Your task to perform on an android device: Clear the cart on amazon.com. Image 0: 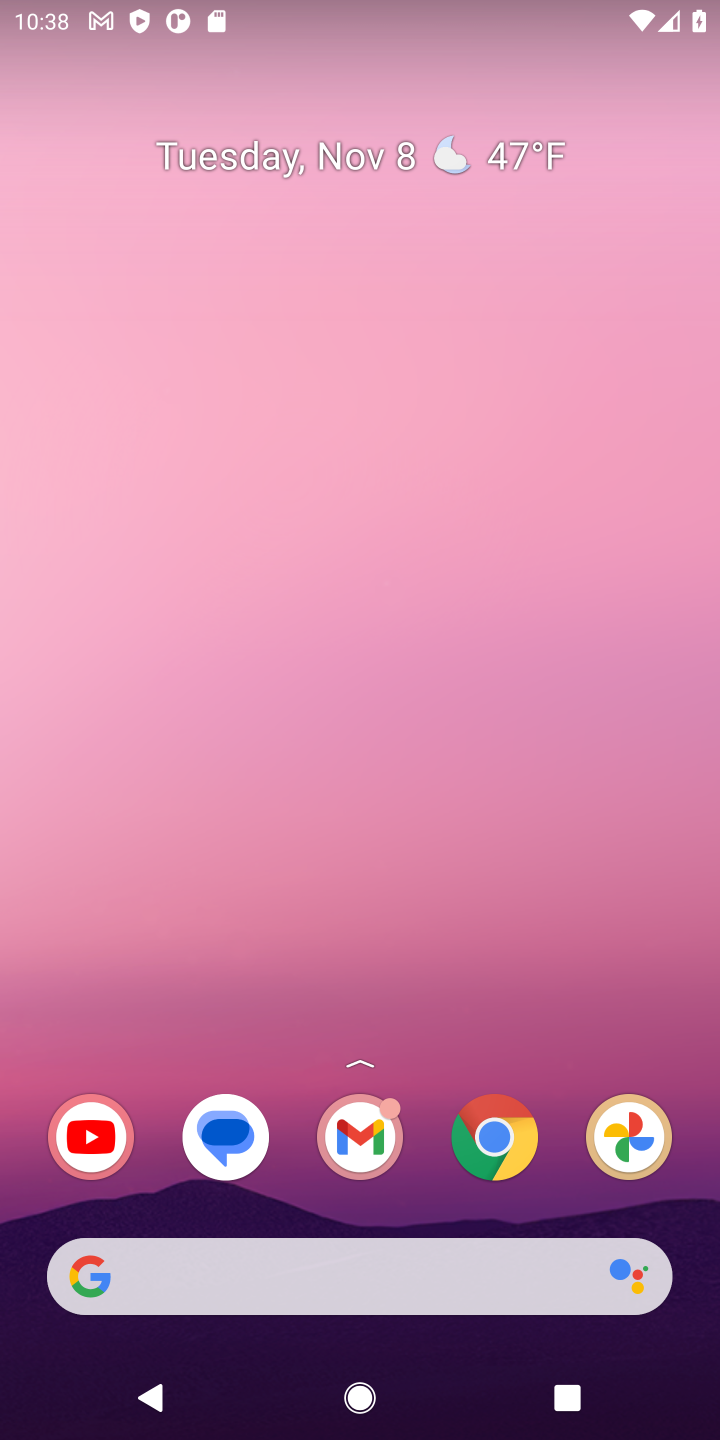
Step 0: click (493, 1135)
Your task to perform on an android device: Clear the cart on amazon.com. Image 1: 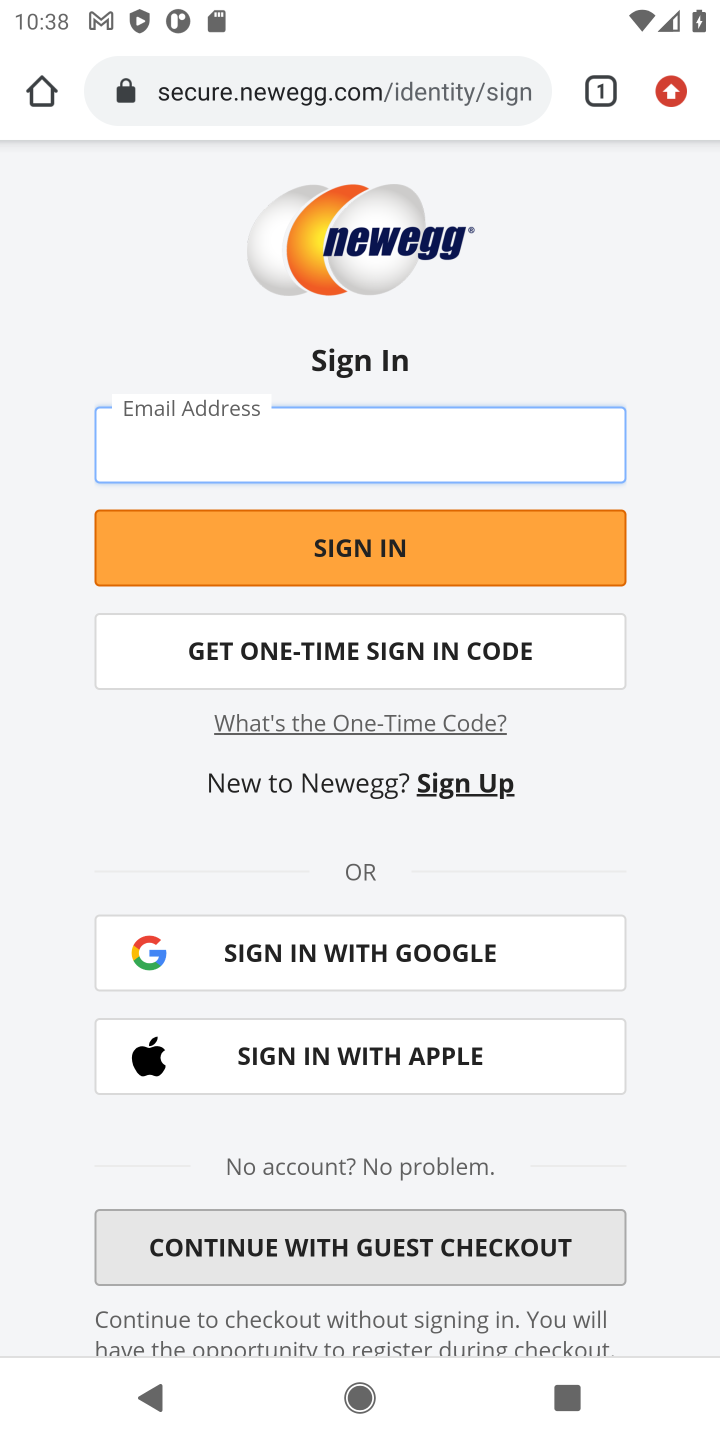
Step 1: click (401, 84)
Your task to perform on an android device: Clear the cart on amazon.com. Image 2: 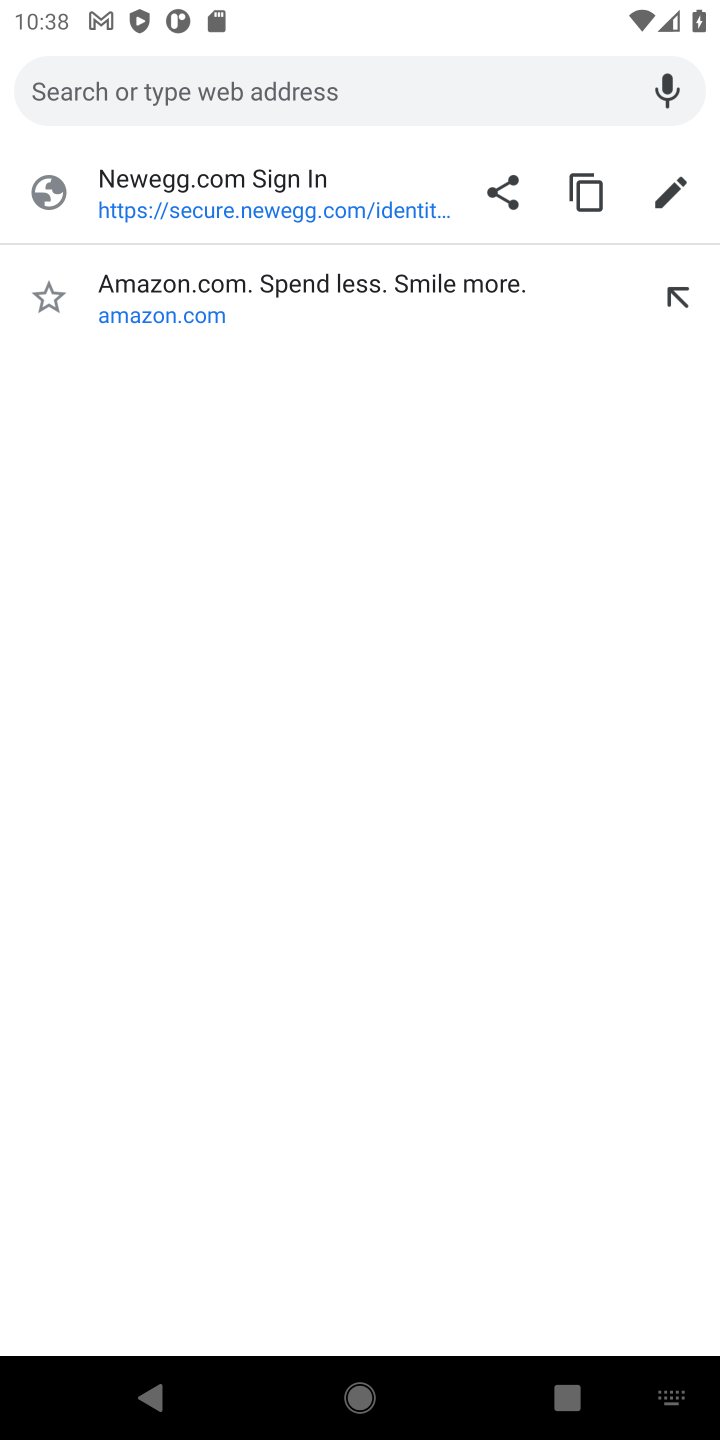
Step 2: type "amazon.com"
Your task to perform on an android device: Clear the cart on amazon.com. Image 3: 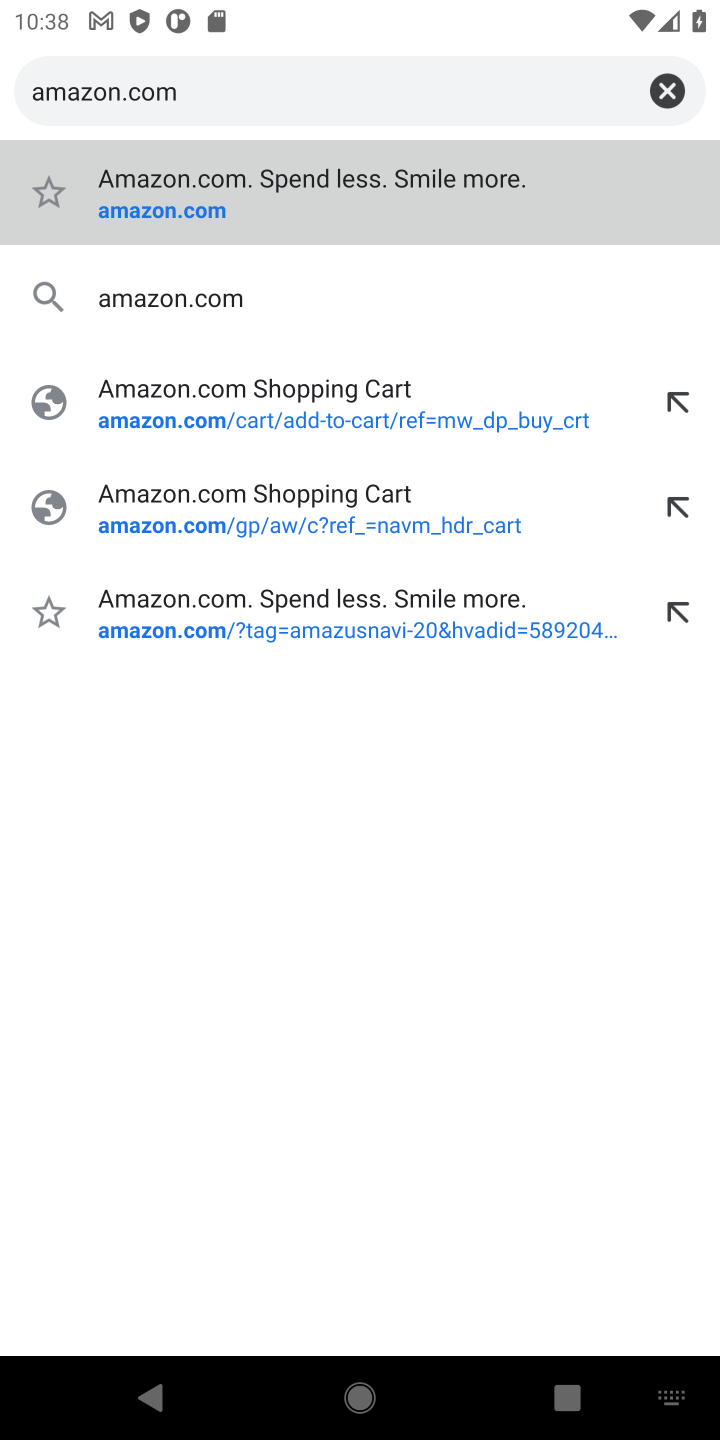
Step 3: click (269, 208)
Your task to perform on an android device: Clear the cart on amazon.com. Image 4: 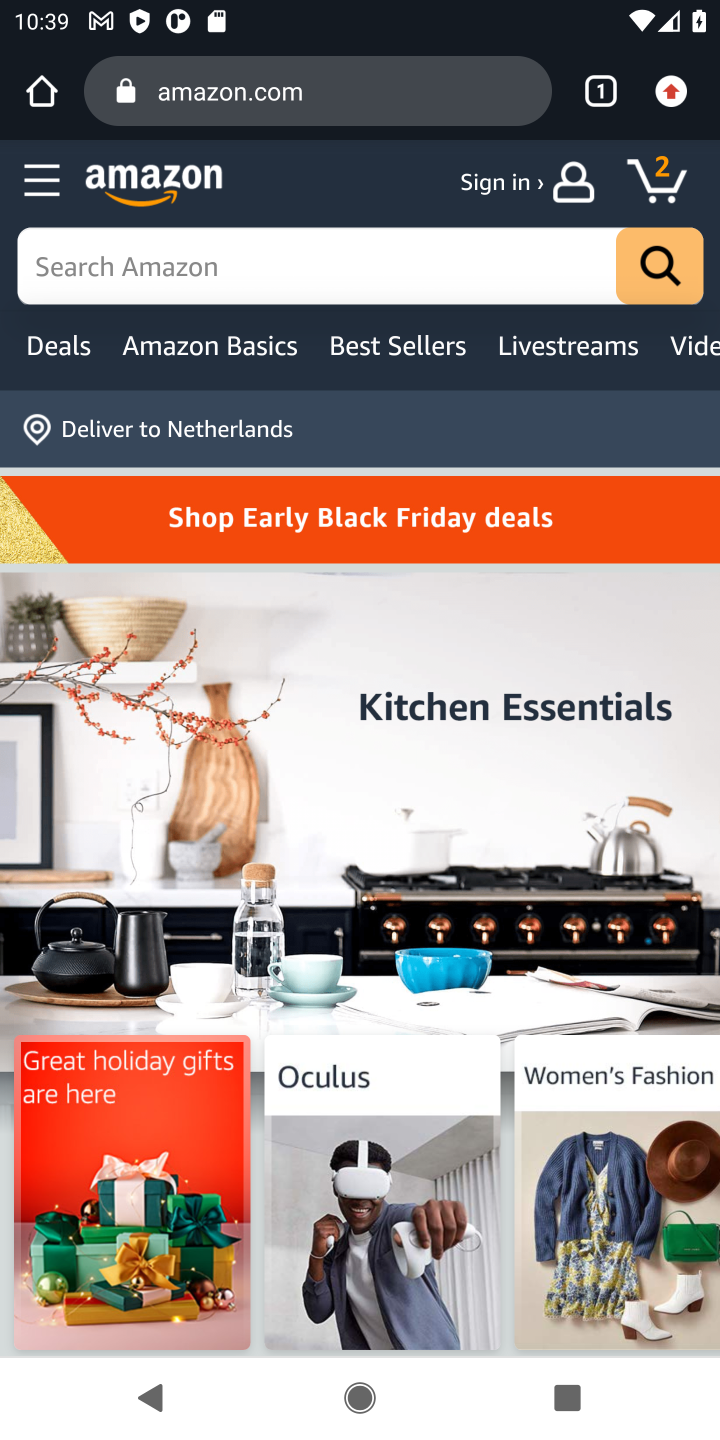
Step 4: click (665, 185)
Your task to perform on an android device: Clear the cart on amazon.com. Image 5: 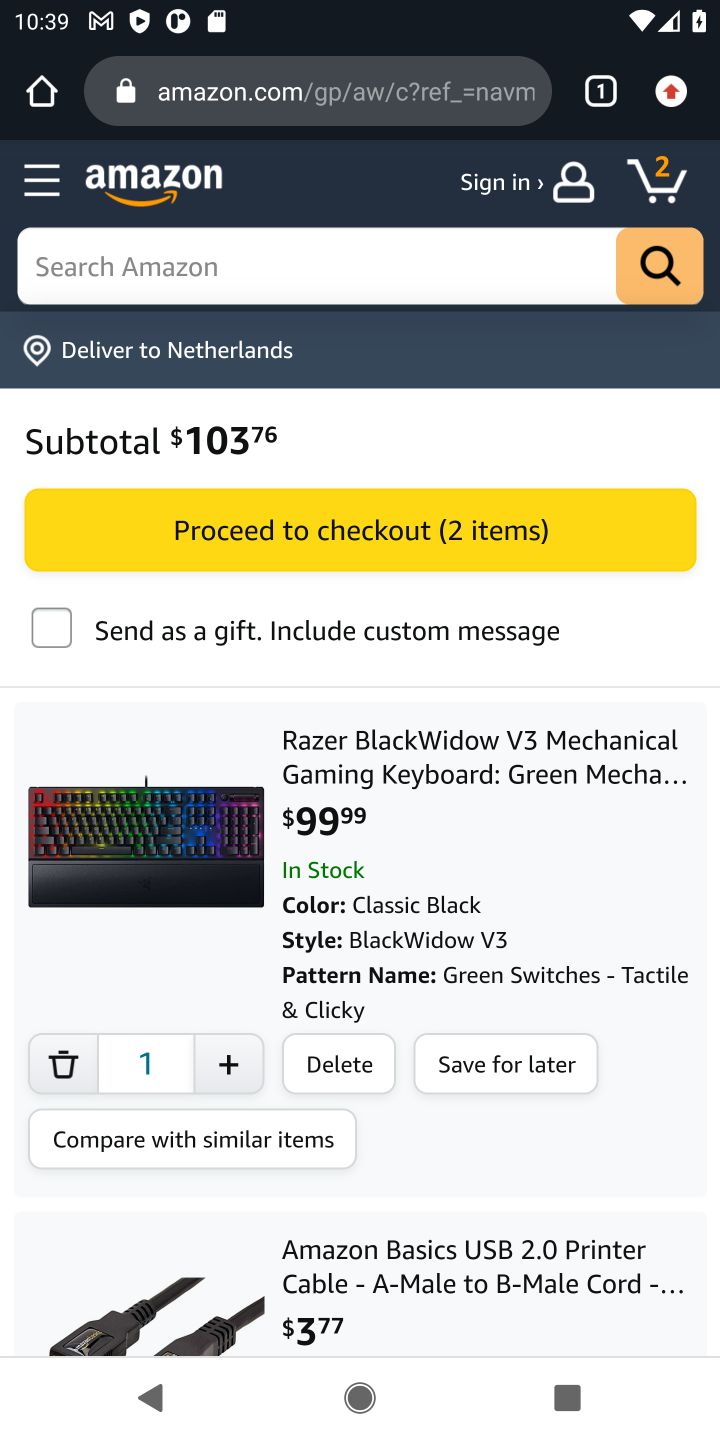
Step 5: click (360, 1063)
Your task to perform on an android device: Clear the cart on amazon.com. Image 6: 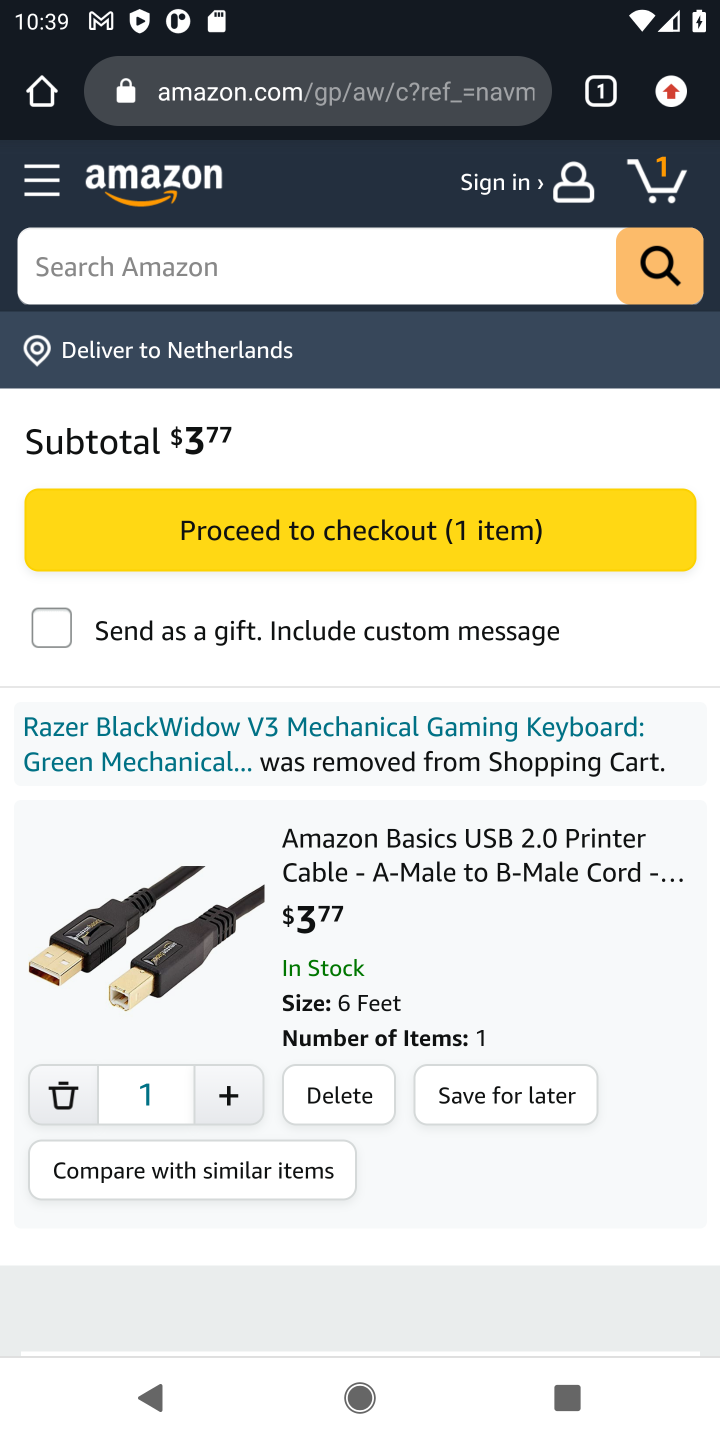
Step 6: click (351, 1098)
Your task to perform on an android device: Clear the cart on amazon.com. Image 7: 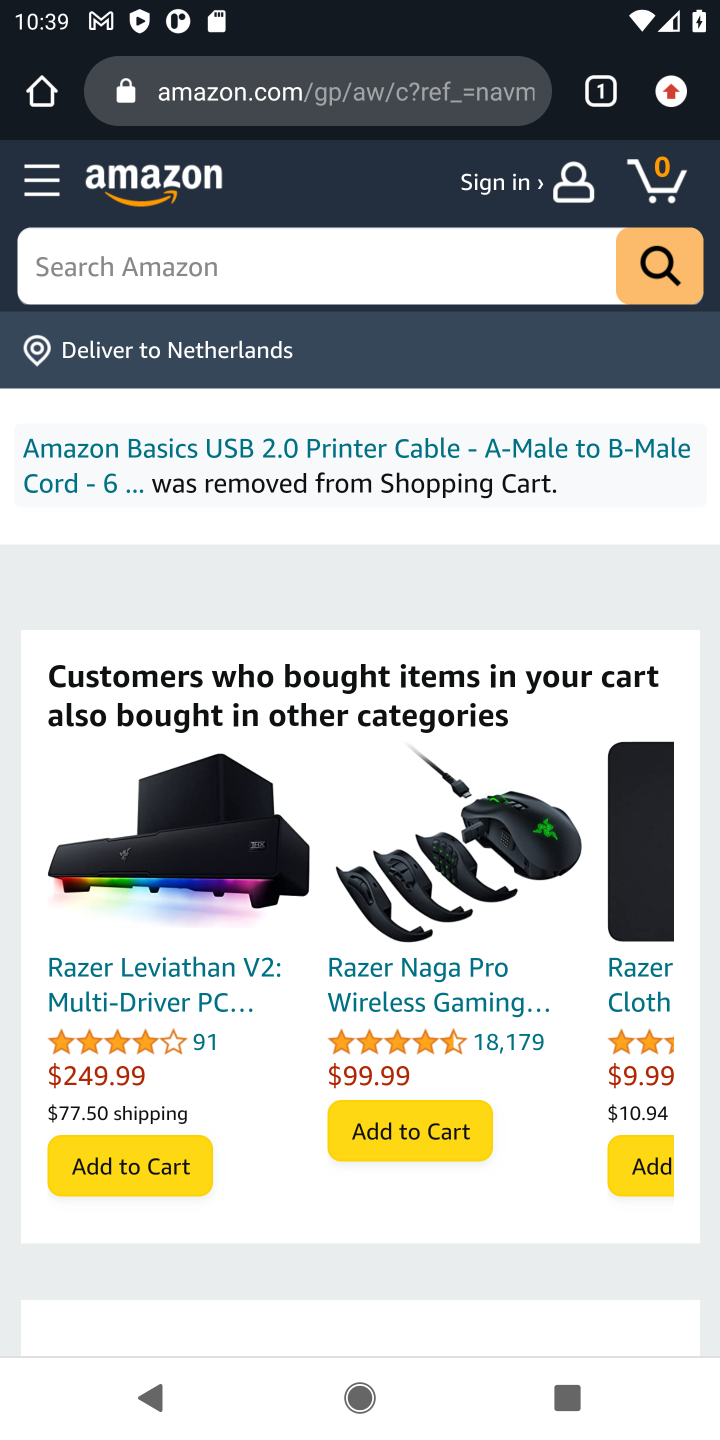
Step 7: task complete